Your task to perform on an android device: Toggle the flashlight Image 0: 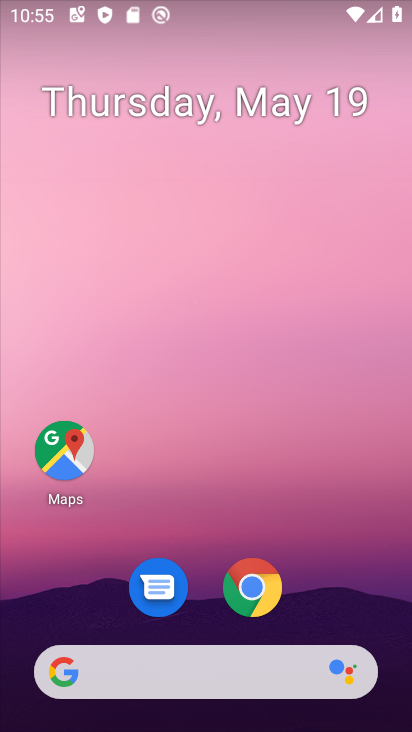
Step 0: drag from (122, 10) to (154, 731)
Your task to perform on an android device: Toggle the flashlight Image 1: 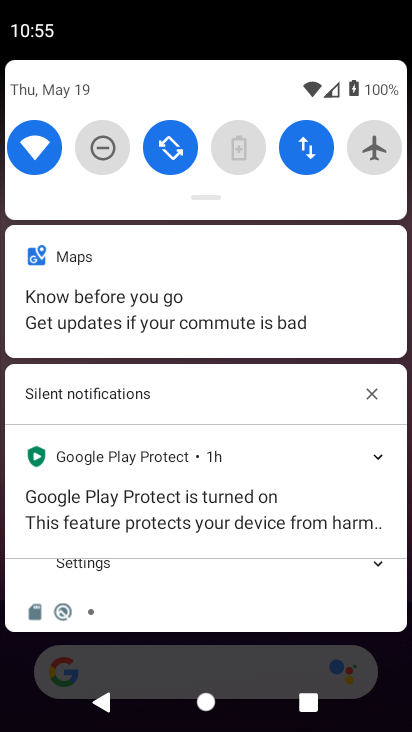
Step 1: task complete